Your task to perform on an android device: Go to privacy settings Image 0: 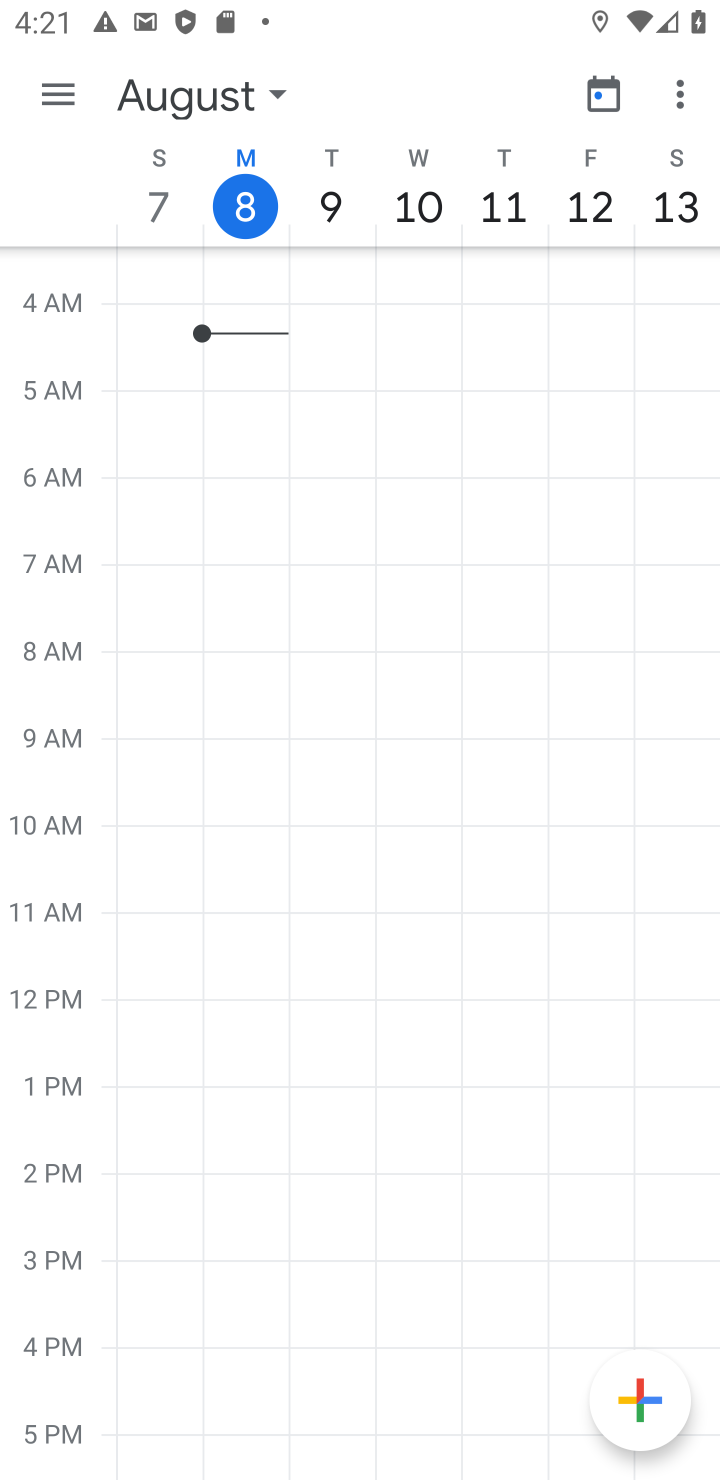
Step 0: press home button
Your task to perform on an android device: Go to privacy settings Image 1: 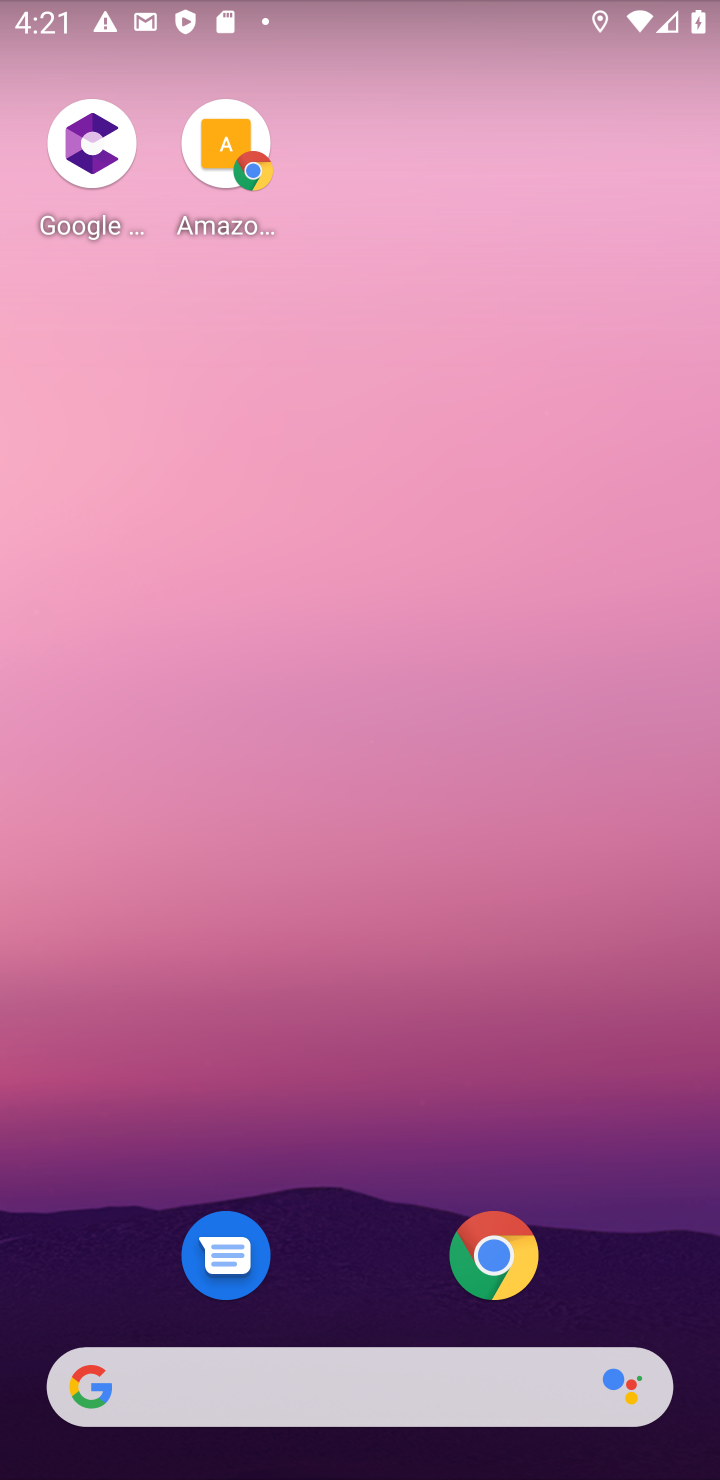
Step 1: drag from (296, 1408) to (598, 484)
Your task to perform on an android device: Go to privacy settings Image 2: 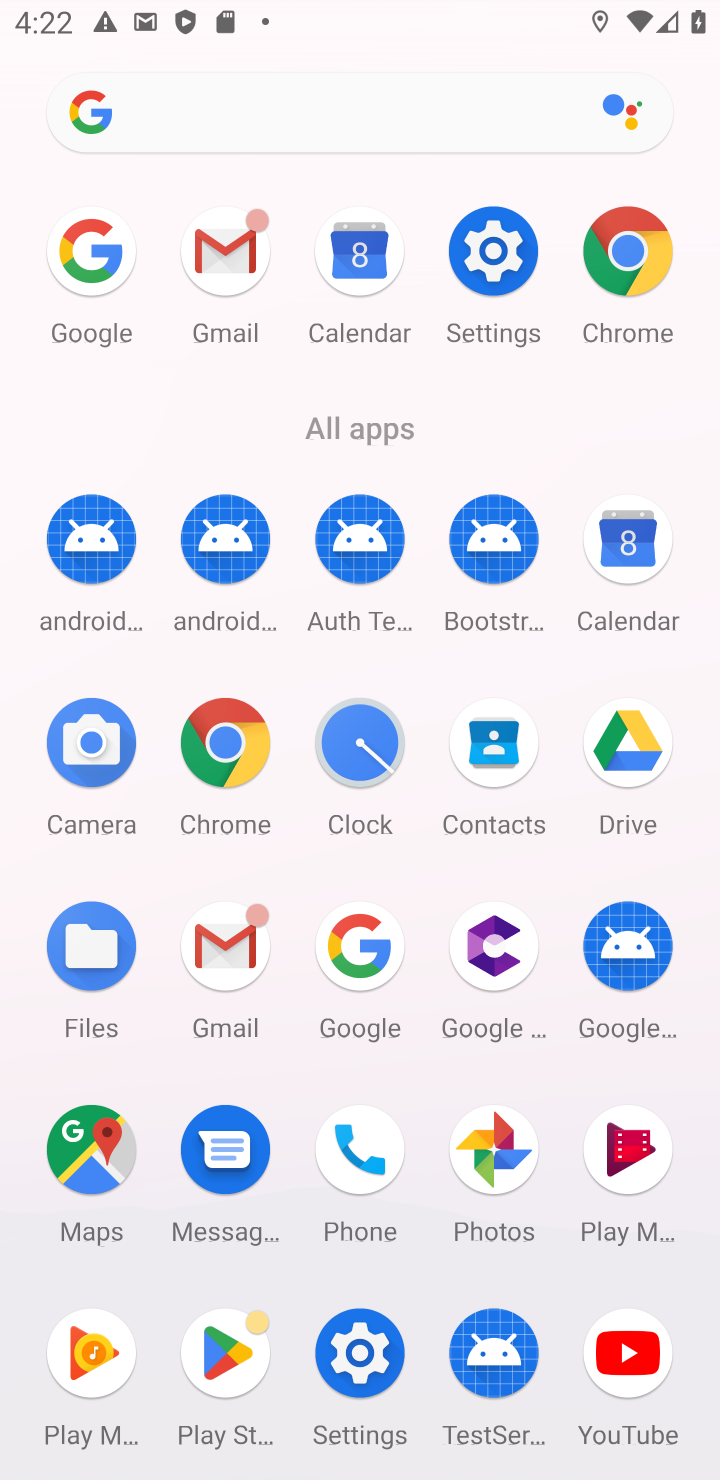
Step 2: click (494, 251)
Your task to perform on an android device: Go to privacy settings Image 3: 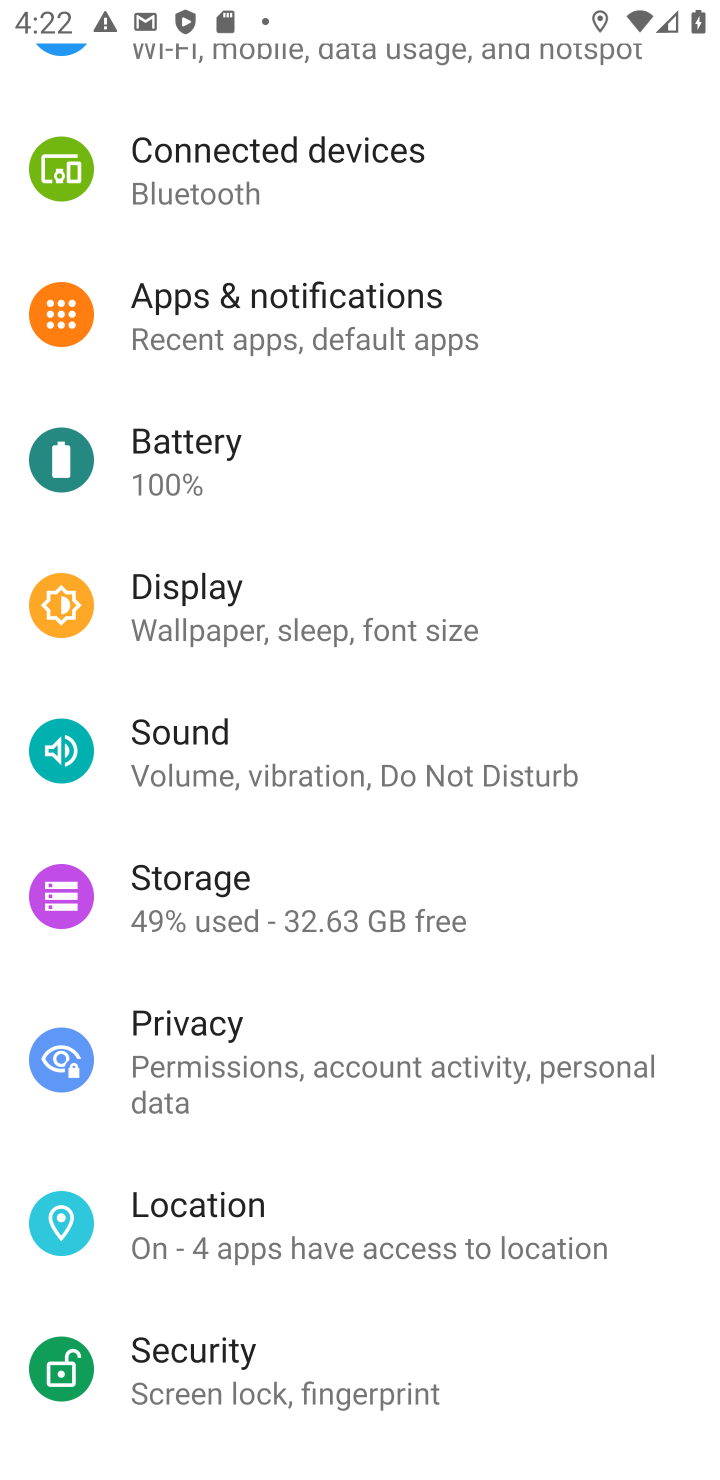
Step 3: click (214, 1040)
Your task to perform on an android device: Go to privacy settings Image 4: 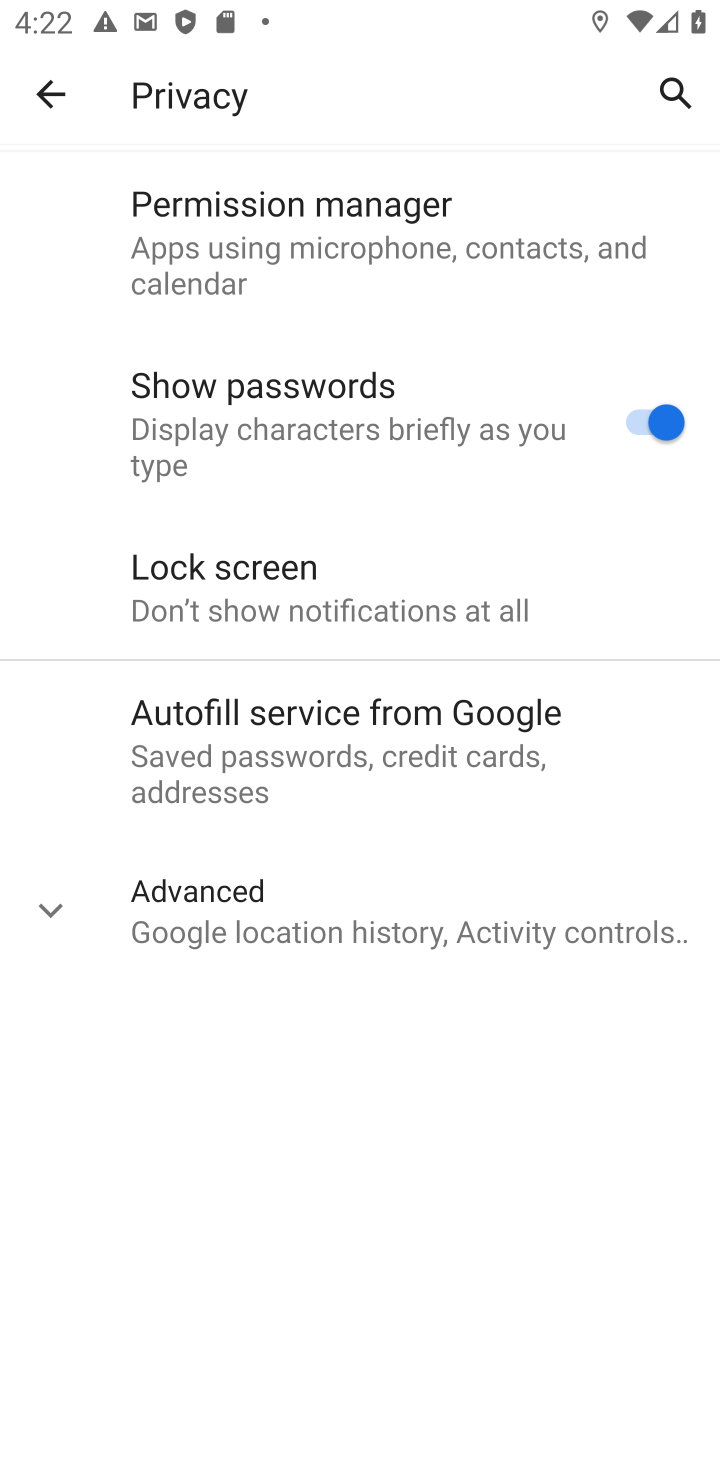
Step 4: task complete